Your task to perform on an android device: open app "Microsoft Authenticator" (install if not already installed) and go to login screen Image 0: 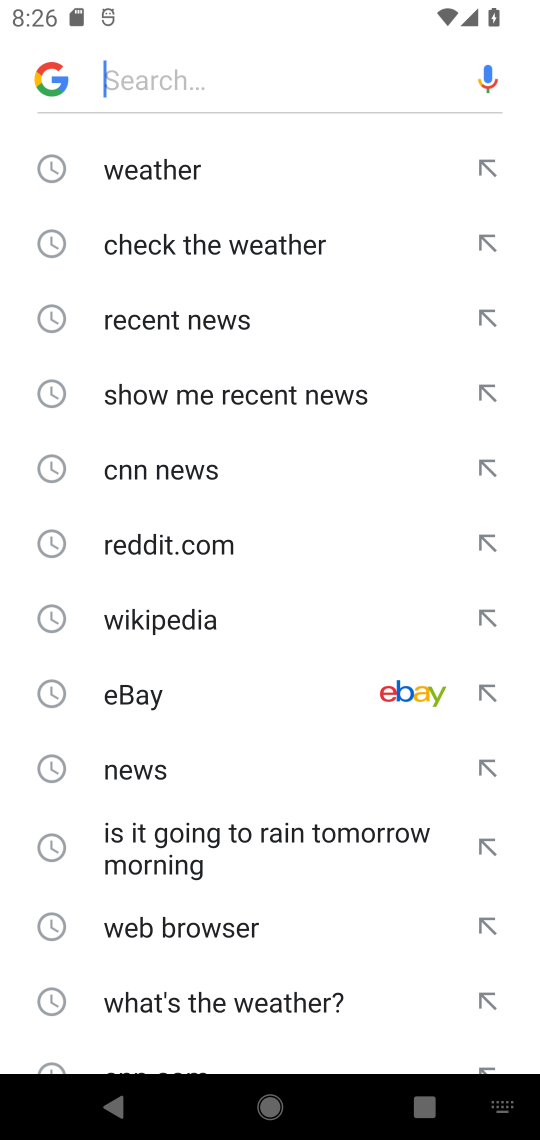
Step 0: press home button
Your task to perform on an android device: open app "Microsoft Authenticator" (install if not already installed) and go to login screen Image 1: 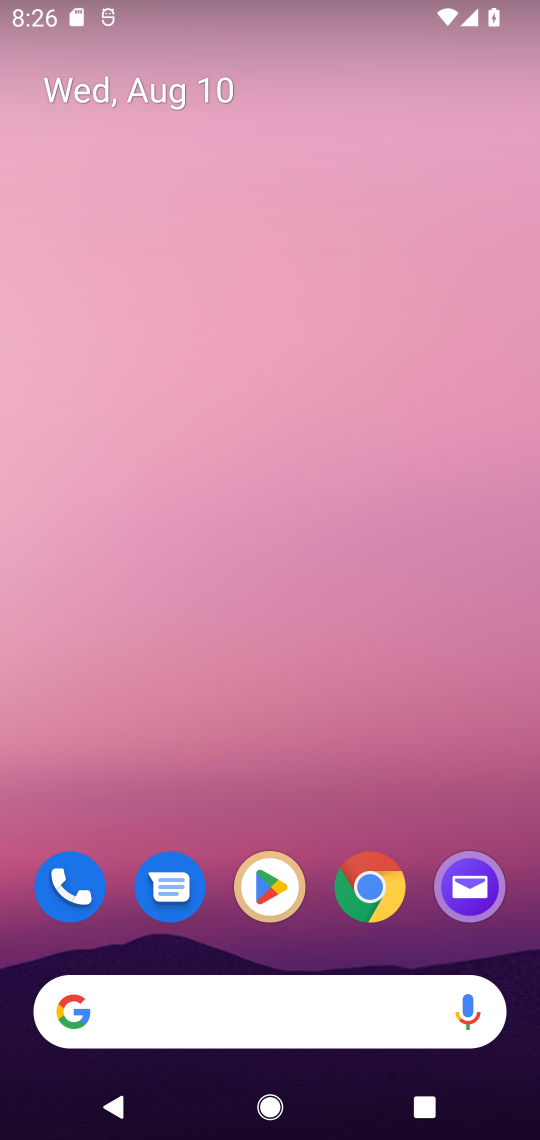
Step 1: drag from (214, 956) to (248, 251)
Your task to perform on an android device: open app "Microsoft Authenticator" (install if not already installed) and go to login screen Image 2: 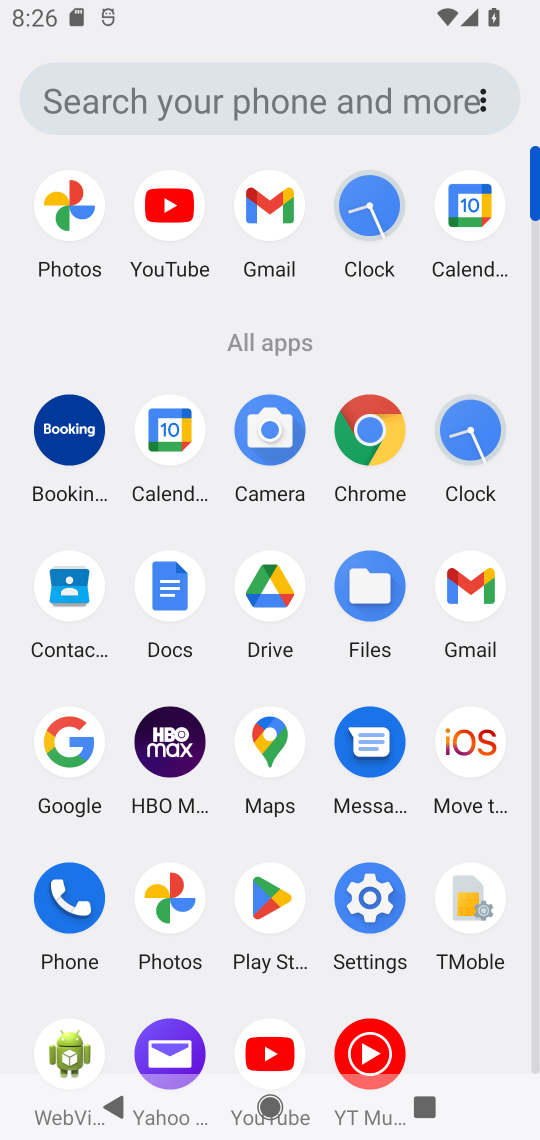
Step 2: click (254, 901)
Your task to perform on an android device: open app "Microsoft Authenticator" (install if not already installed) and go to login screen Image 3: 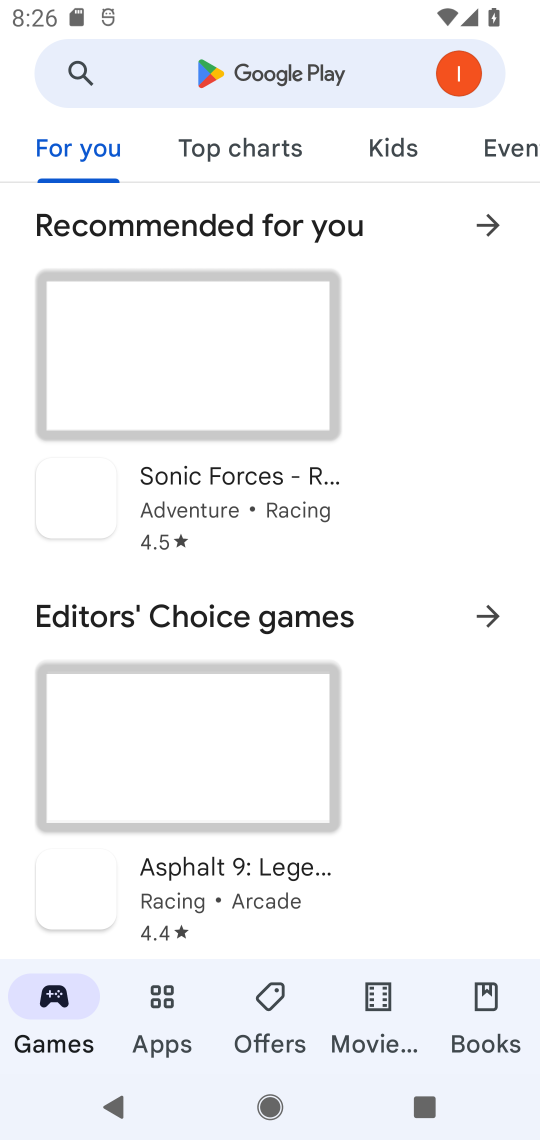
Step 3: click (342, 69)
Your task to perform on an android device: open app "Microsoft Authenticator" (install if not already installed) and go to login screen Image 4: 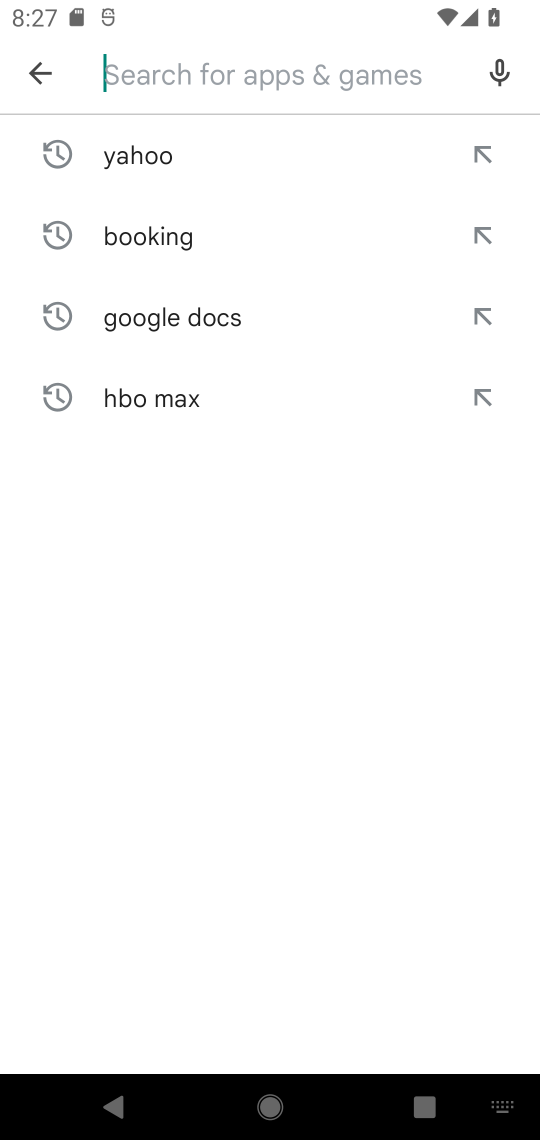
Step 4: type "mmicrosoft"
Your task to perform on an android device: open app "Microsoft Authenticator" (install if not already installed) and go to login screen Image 5: 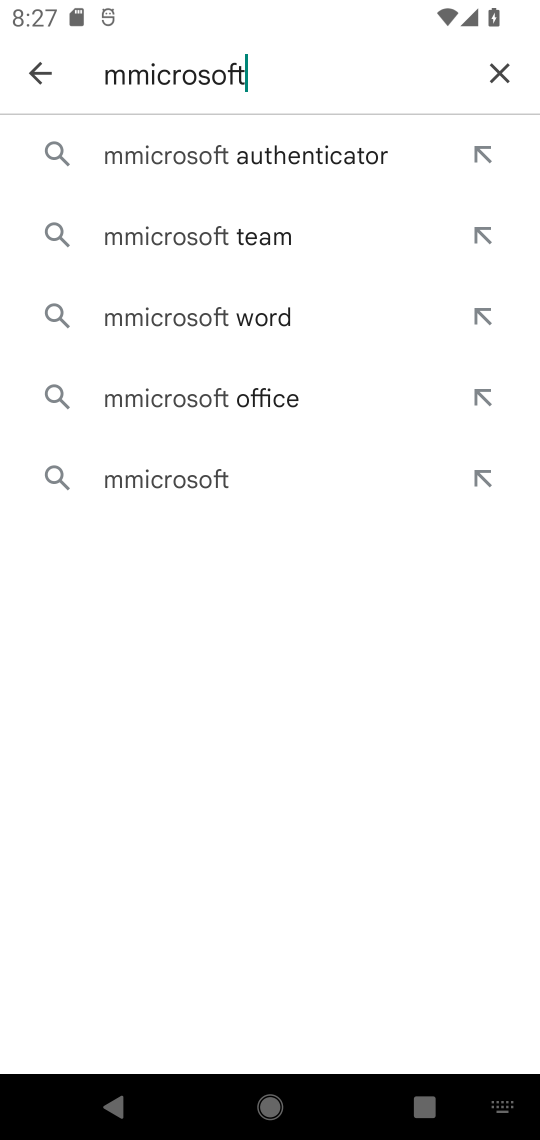
Step 5: click (294, 122)
Your task to perform on an android device: open app "Microsoft Authenticator" (install if not already installed) and go to login screen Image 6: 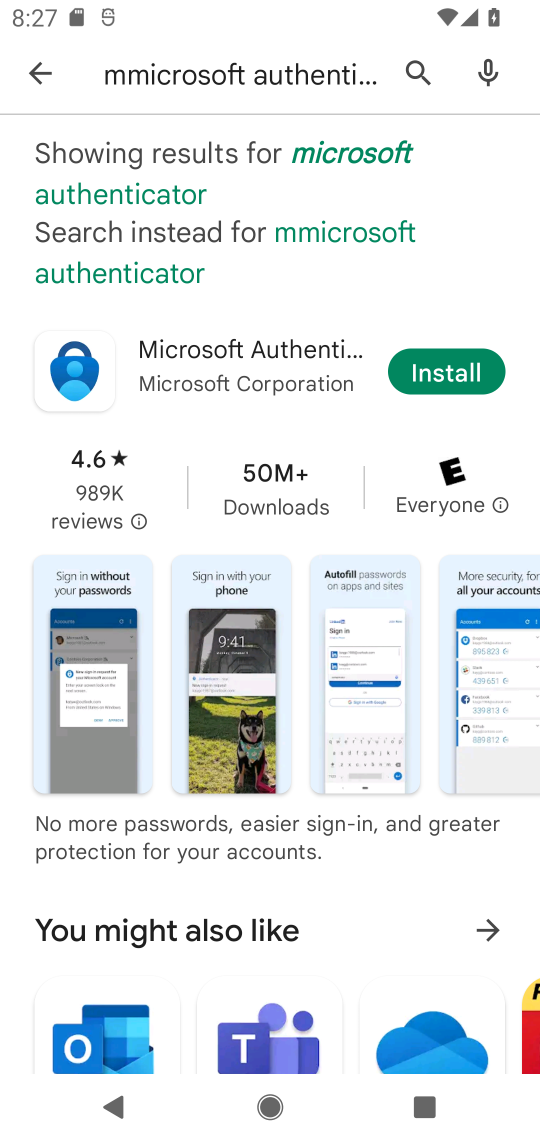
Step 6: click (493, 359)
Your task to perform on an android device: open app "Microsoft Authenticator" (install if not already installed) and go to login screen Image 7: 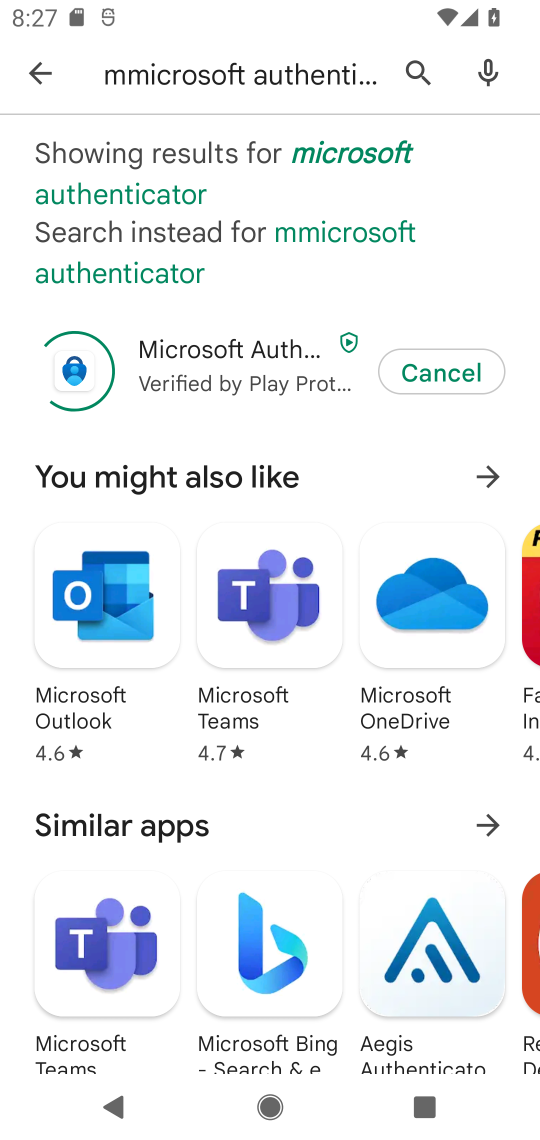
Step 7: task complete